Your task to perform on an android device: Go to sound settings Image 0: 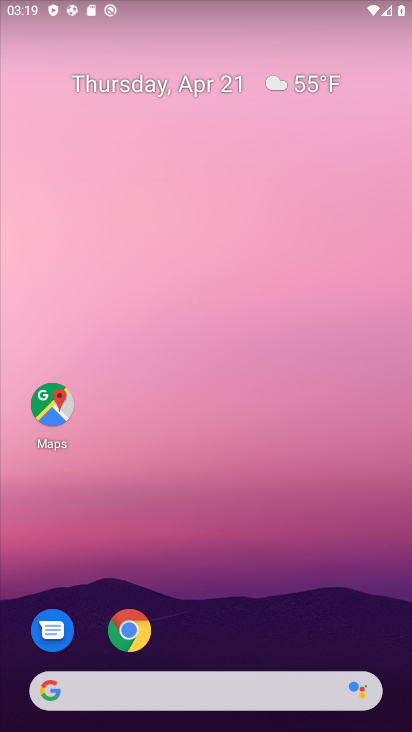
Step 0: drag from (212, 599) to (363, 5)
Your task to perform on an android device: Go to sound settings Image 1: 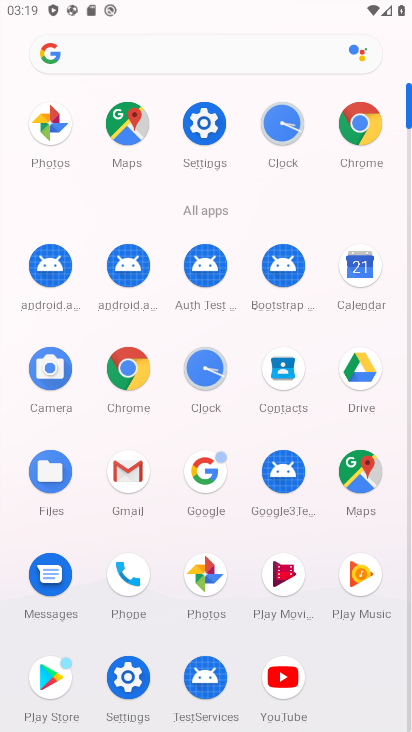
Step 1: click (209, 139)
Your task to perform on an android device: Go to sound settings Image 2: 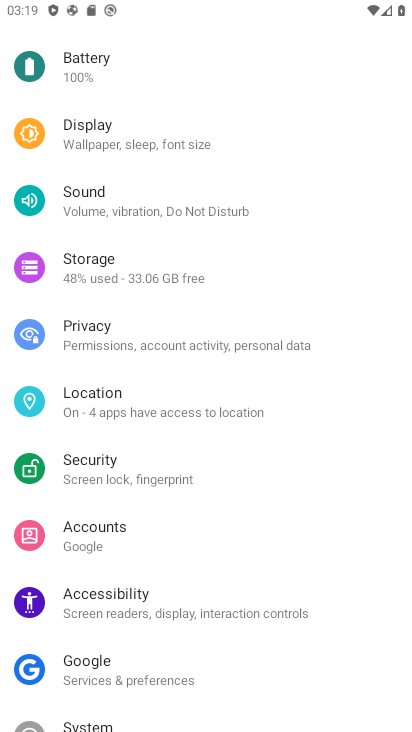
Step 2: click (160, 203)
Your task to perform on an android device: Go to sound settings Image 3: 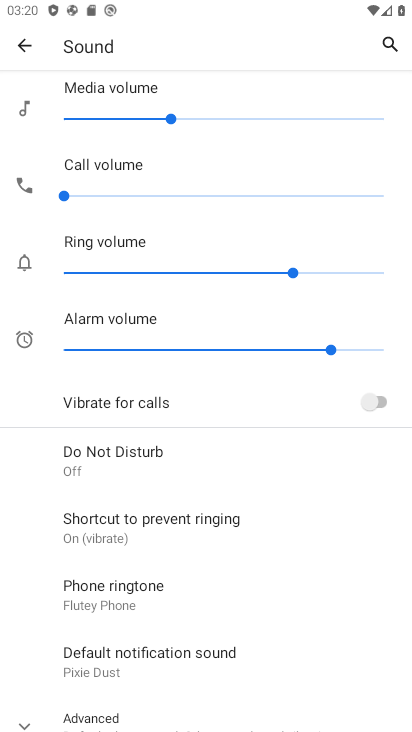
Step 3: task complete